Your task to perform on an android device: see tabs open on other devices in the chrome app Image 0: 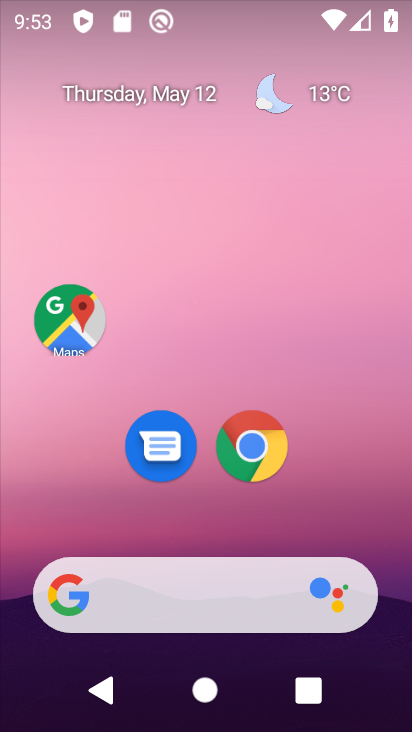
Step 0: drag from (205, 537) to (269, 1)
Your task to perform on an android device: see tabs open on other devices in the chrome app Image 1: 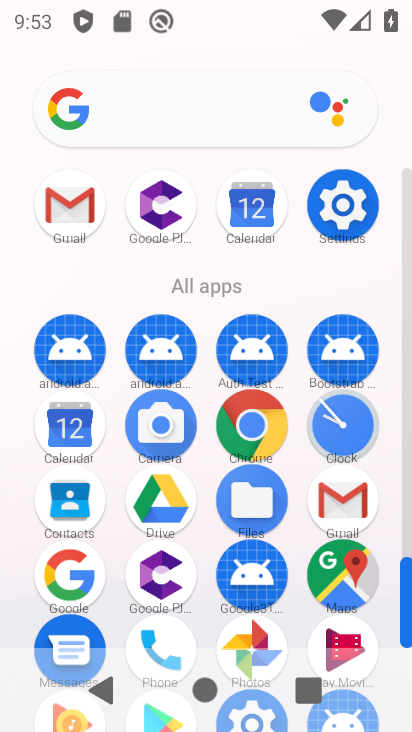
Step 1: click (247, 442)
Your task to perform on an android device: see tabs open on other devices in the chrome app Image 2: 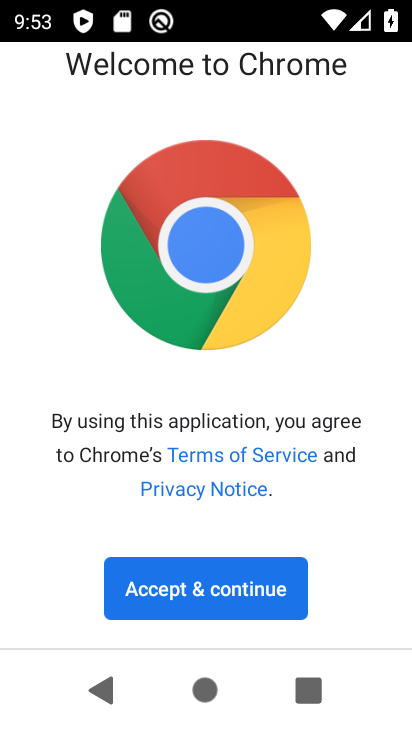
Step 2: click (203, 577)
Your task to perform on an android device: see tabs open on other devices in the chrome app Image 3: 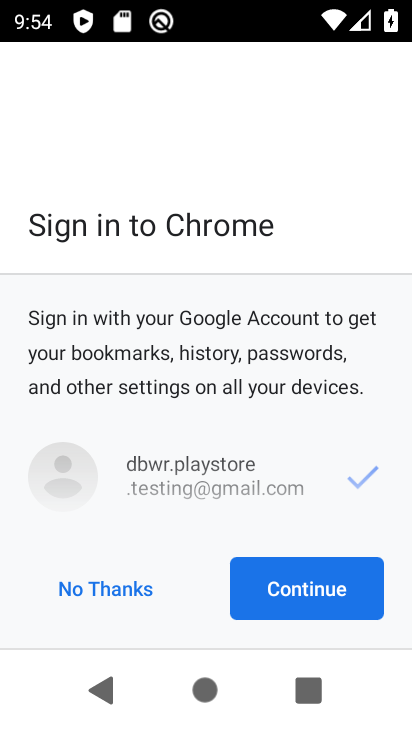
Step 3: click (252, 578)
Your task to perform on an android device: see tabs open on other devices in the chrome app Image 4: 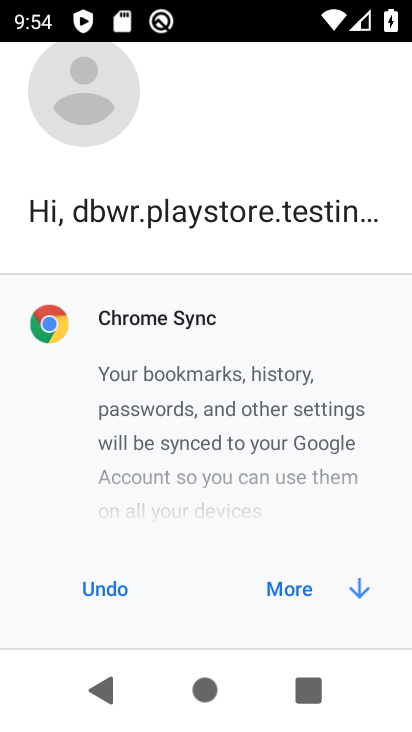
Step 4: click (281, 591)
Your task to perform on an android device: see tabs open on other devices in the chrome app Image 5: 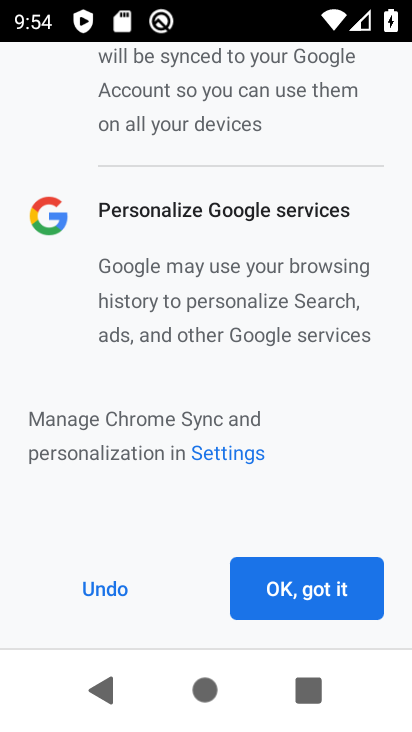
Step 5: click (281, 591)
Your task to perform on an android device: see tabs open on other devices in the chrome app Image 6: 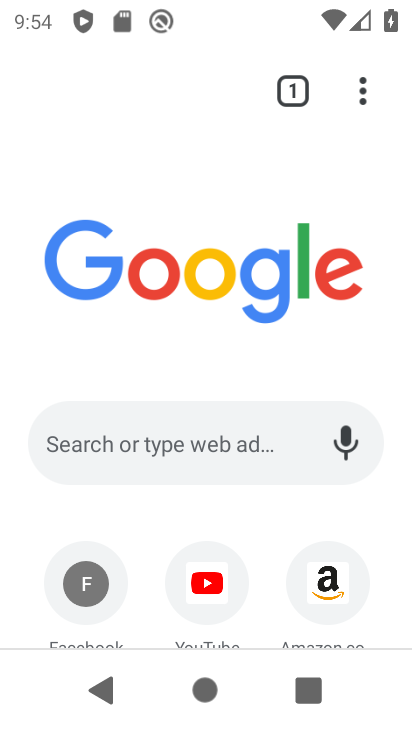
Step 6: task complete